Your task to perform on an android device: change the clock style Image 0: 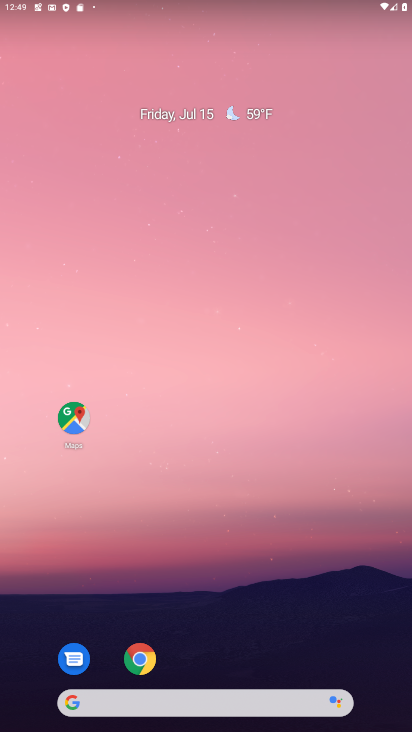
Step 0: drag from (255, 726) to (293, 422)
Your task to perform on an android device: change the clock style Image 1: 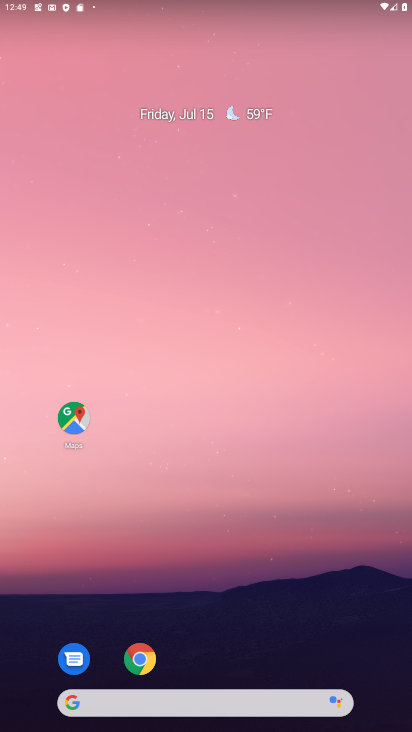
Step 1: drag from (216, 679) to (241, 247)
Your task to perform on an android device: change the clock style Image 2: 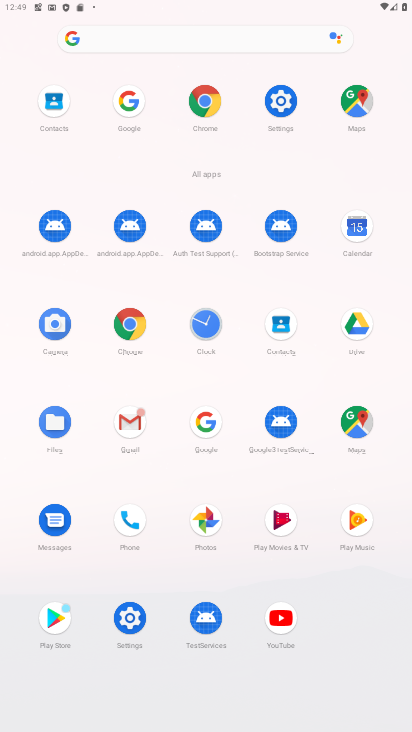
Step 2: click (209, 318)
Your task to perform on an android device: change the clock style Image 3: 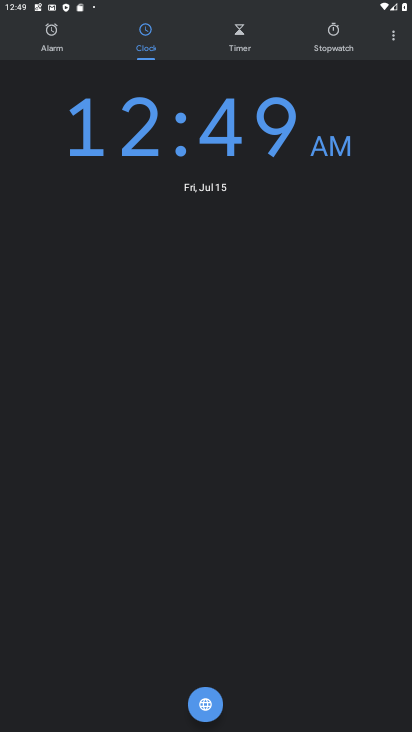
Step 3: click (394, 38)
Your task to perform on an android device: change the clock style Image 4: 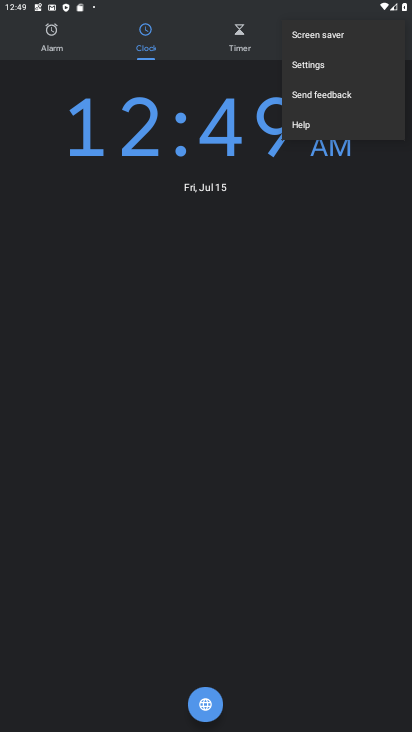
Step 4: click (307, 62)
Your task to perform on an android device: change the clock style Image 5: 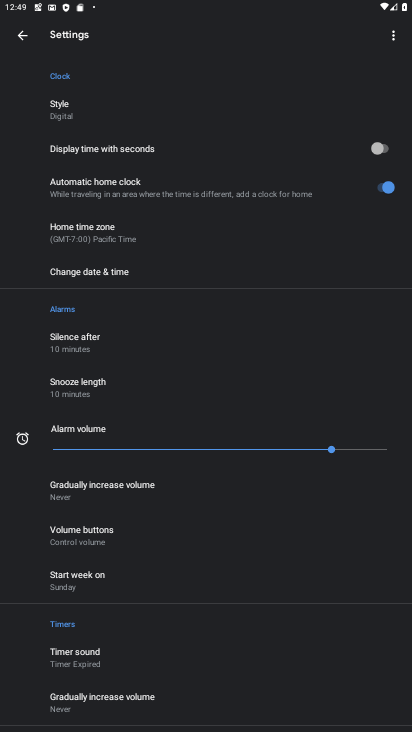
Step 5: click (59, 103)
Your task to perform on an android device: change the clock style Image 6: 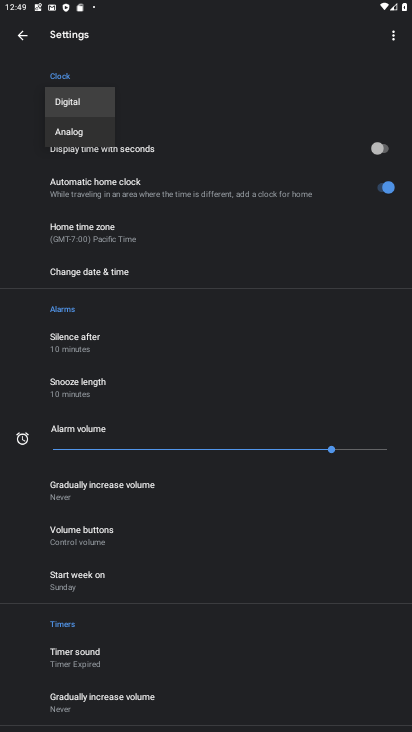
Step 6: click (68, 132)
Your task to perform on an android device: change the clock style Image 7: 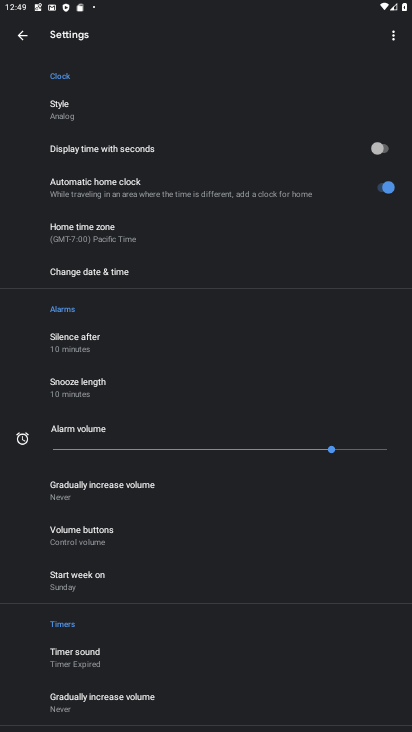
Step 7: task complete